Your task to perform on an android device: What is the news today? Image 0: 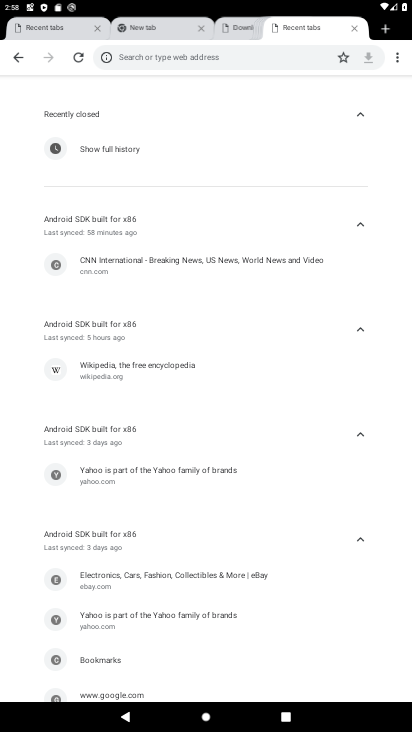
Step 0: press home button
Your task to perform on an android device: What is the news today? Image 1: 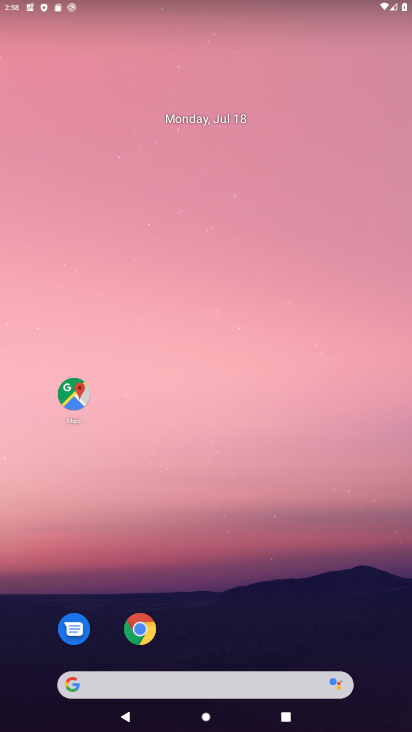
Step 1: drag from (223, 615) to (203, 131)
Your task to perform on an android device: What is the news today? Image 2: 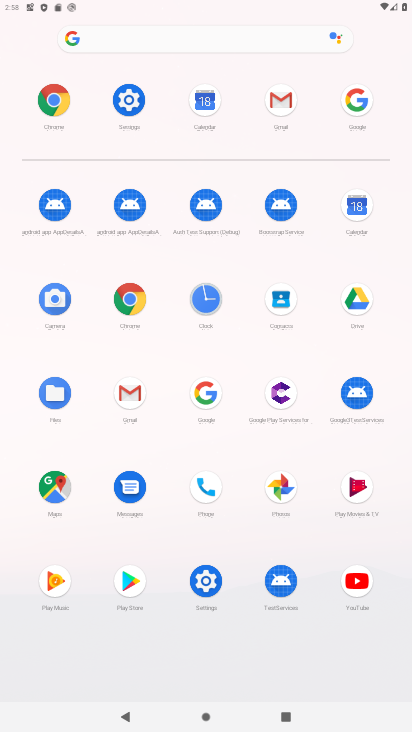
Step 2: click (361, 120)
Your task to perform on an android device: What is the news today? Image 3: 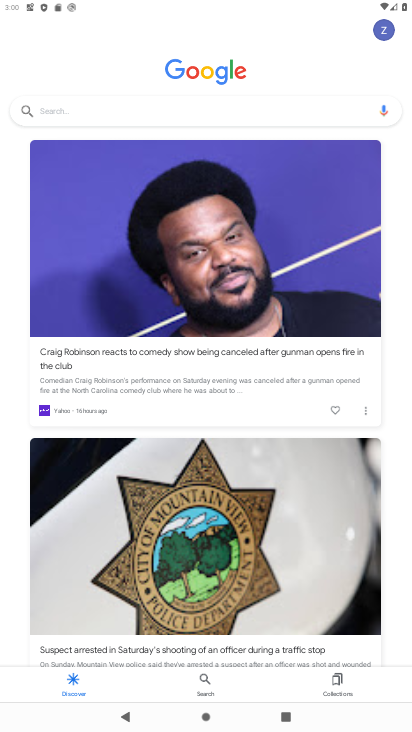
Step 3: click (125, 103)
Your task to perform on an android device: What is the news today? Image 4: 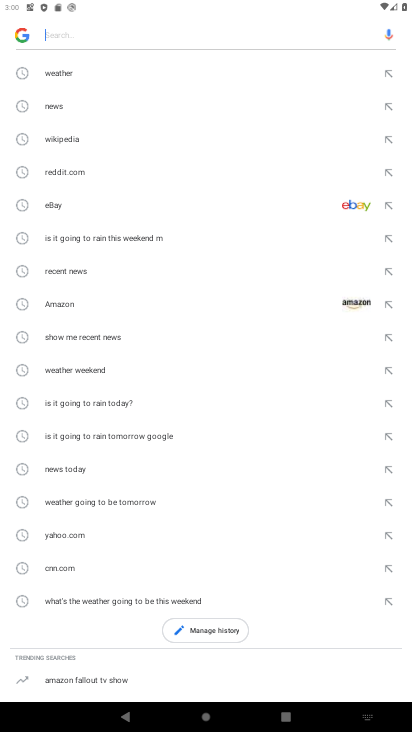
Step 4: click (88, 107)
Your task to perform on an android device: What is the news today? Image 5: 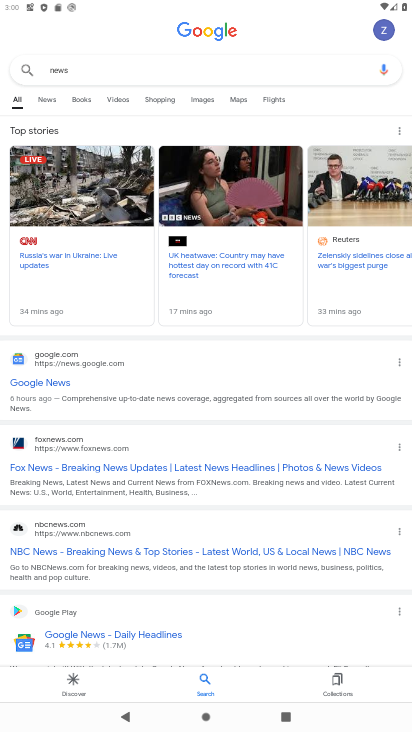
Step 5: click (57, 96)
Your task to perform on an android device: What is the news today? Image 6: 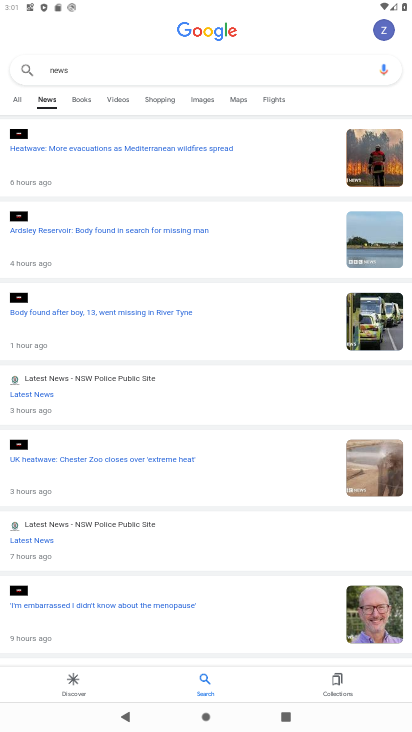
Step 6: task complete